Your task to perform on an android device: turn on showing notifications on the lock screen Image 0: 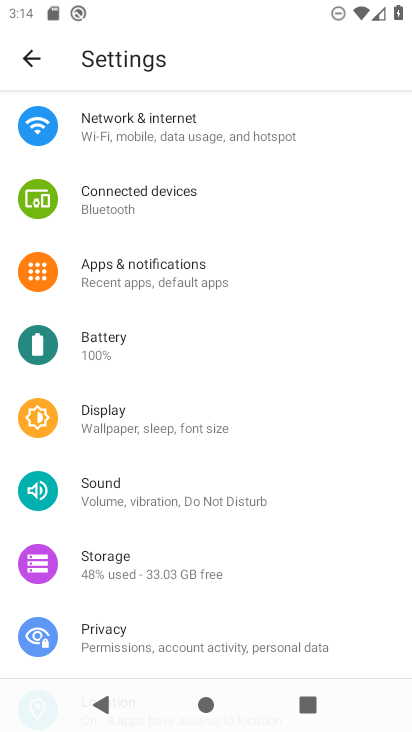
Step 0: click (184, 271)
Your task to perform on an android device: turn on showing notifications on the lock screen Image 1: 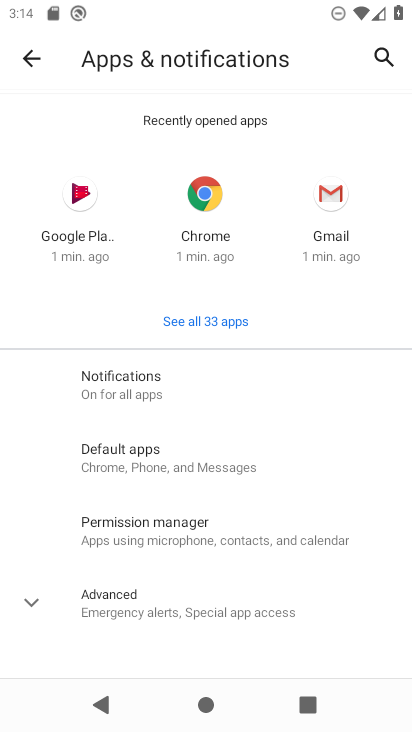
Step 1: click (180, 392)
Your task to perform on an android device: turn on showing notifications on the lock screen Image 2: 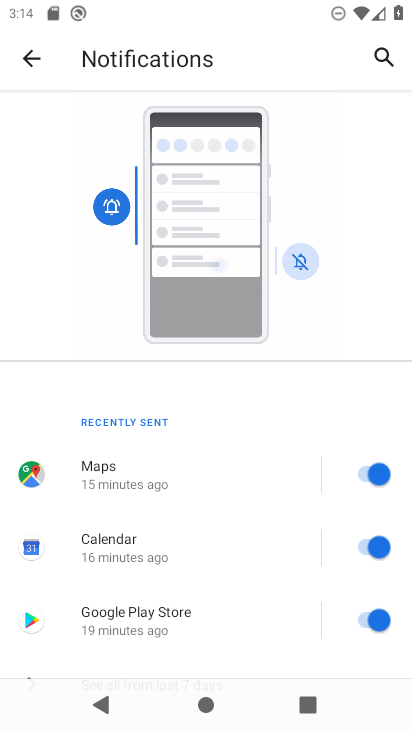
Step 2: drag from (149, 614) to (211, 192)
Your task to perform on an android device: turn on showing notifications on the lock screen Image 3: 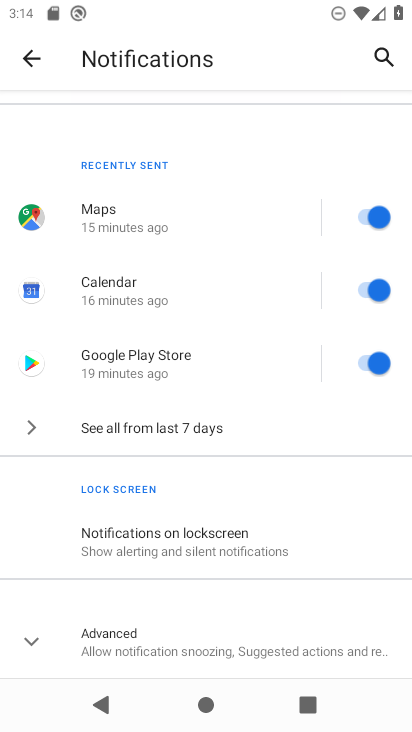
Step 3: click (187, 541)
Your task to perform on an android device: turn on showing notifications on the lock screen Image 4: 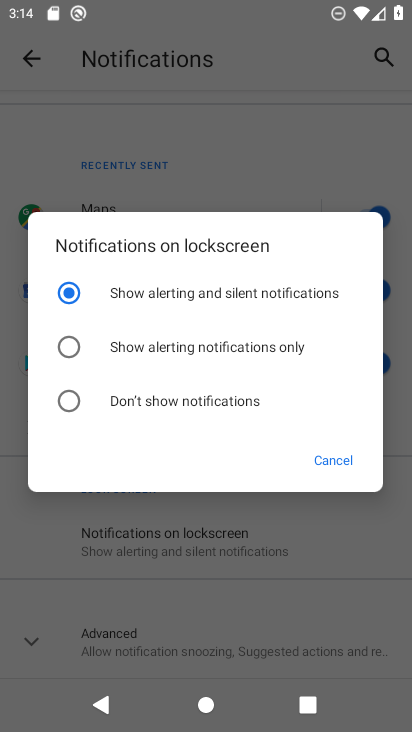
Step 4: task complete